Your task to perform on an android device: set the stopwatch Image 0: 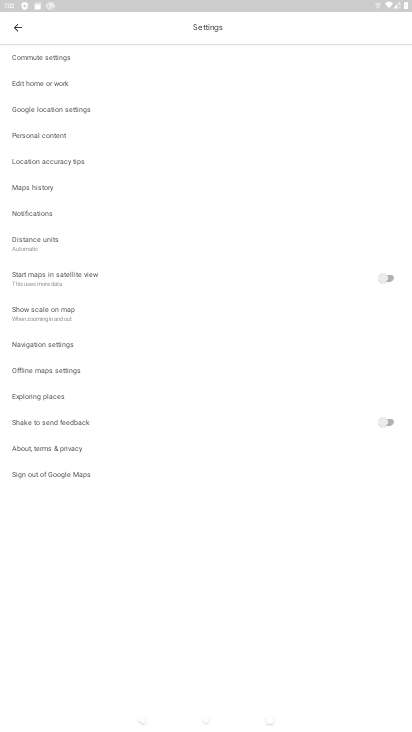
Step 0: press home button
Your task to perform on an android device: set the stopwatch Image 1: 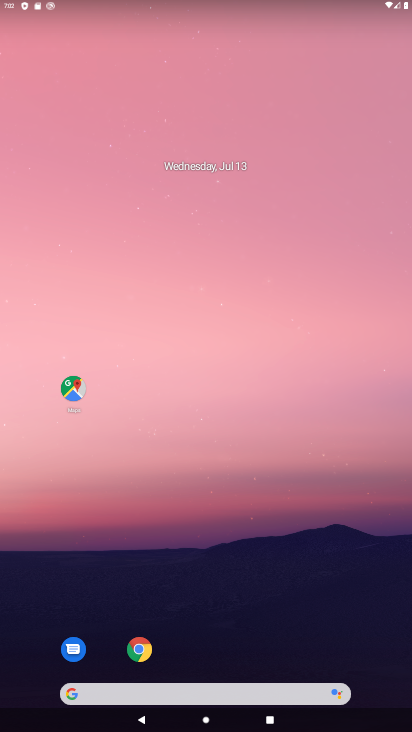
Step 1: drag from (242, 695) to (353, 28)
Your task to perform on an android device: set the stopwatch Image 2: 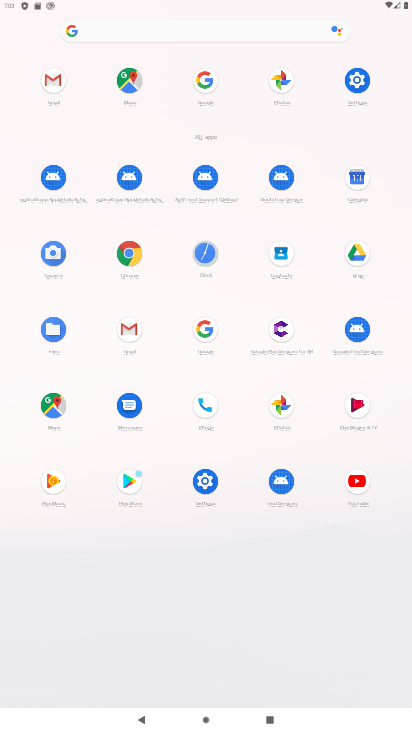
Step 2: click (208, 252)
Your task to perform on an android device: set the stopwatch Image 3: 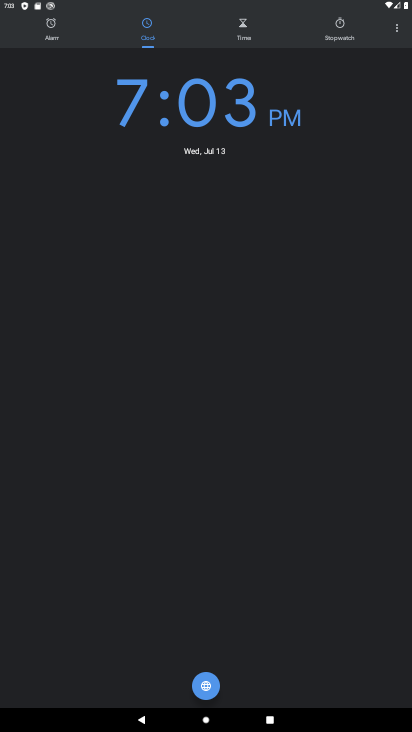
Step 3: click (342, 24)
Your task to perform on an android device: set the stopwatch Image 4: 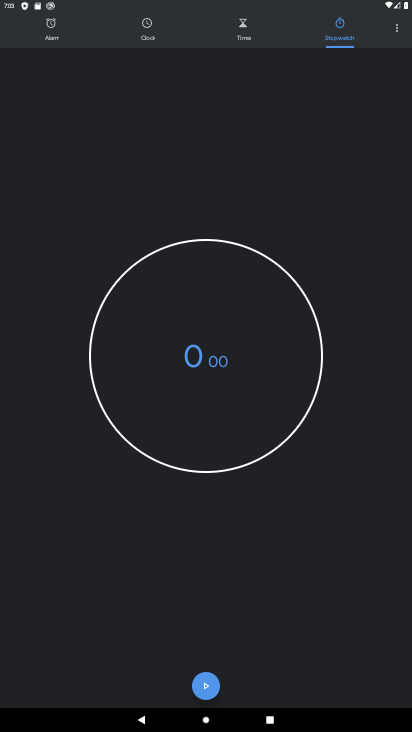
Step 4: click (201, 686)
Your task to perform on an android device: set the stopwatch Image 5: 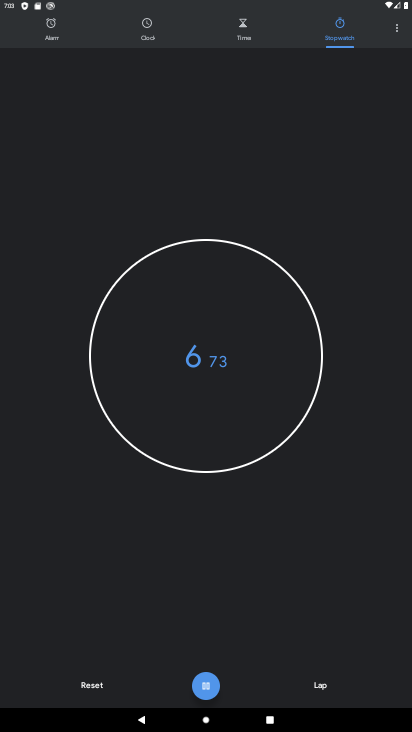
Step 5: click (201, 686)
Your task to perform on an android device: set the stopwatch Image 6: 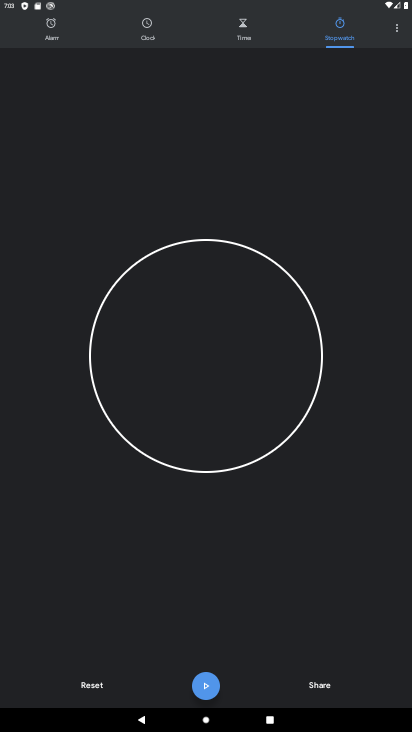
Step 6: task complete